Your task to perform on an android device: Open CNN.com Image 0: 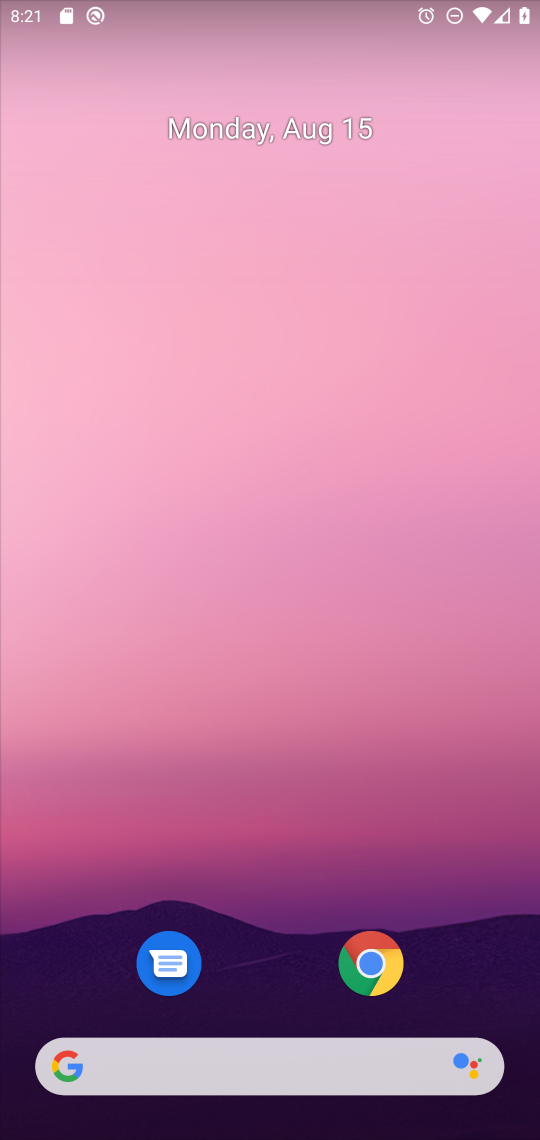
Step 0: click (360, 960)
Your task to perform on an android device: Open CNN.com Image 1: 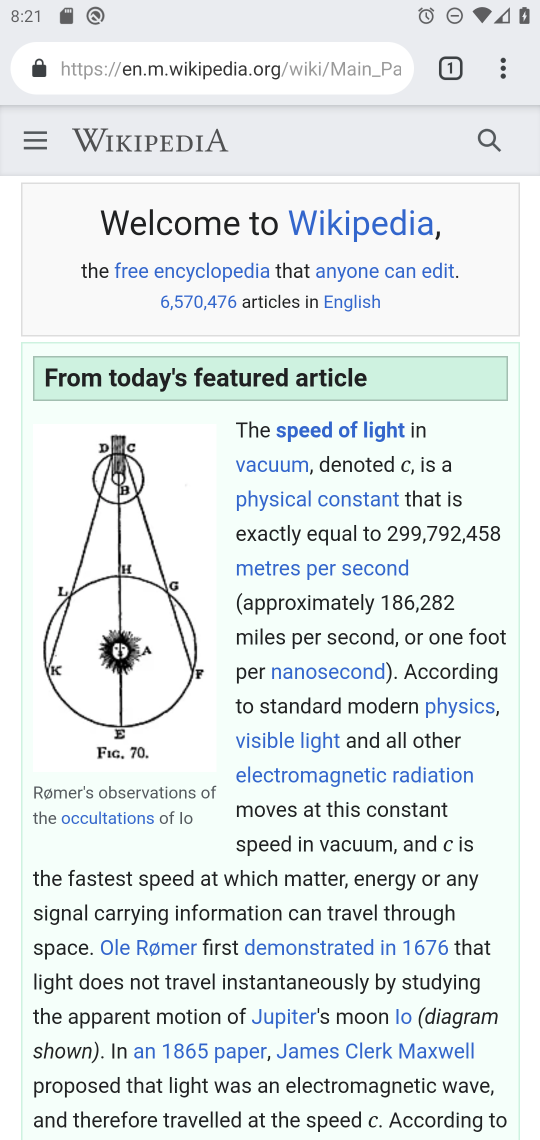
Step 1: click (239, 62)
Your task to perform on an android device: Open CNN.com Image 2: 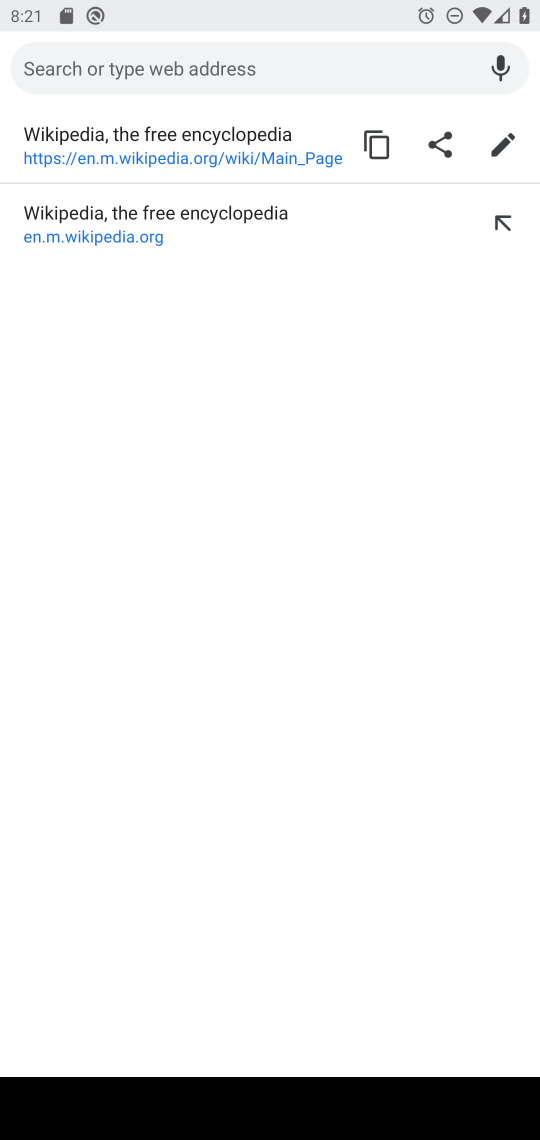
Step 2: type "cnn"
Your task to perform on an android device: Open CNN.com Image 3: 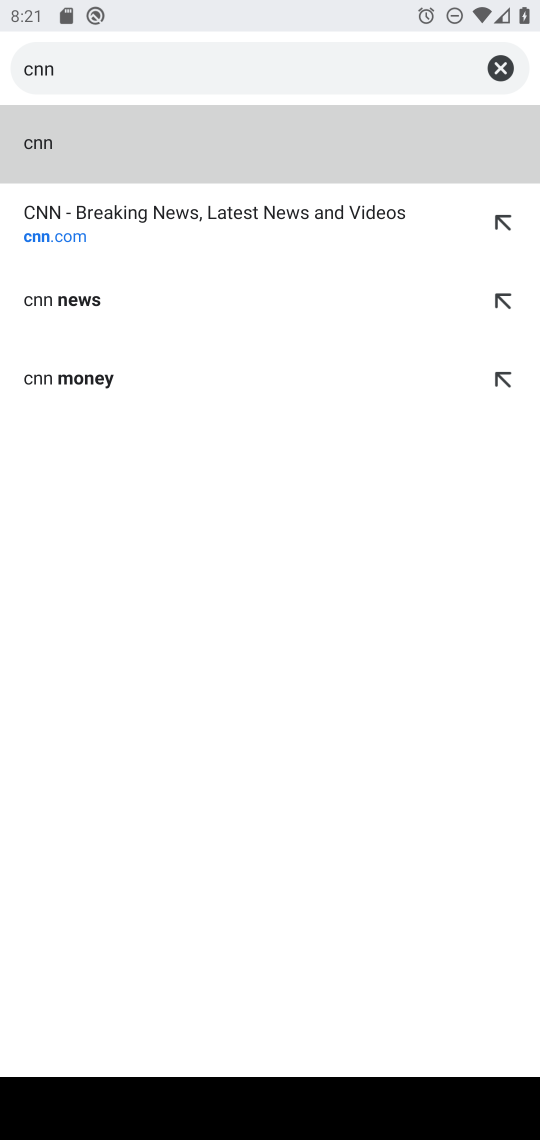
Step 3: click (364, 244)
Your task to perform on an android device: Open CNN.com Image 4: 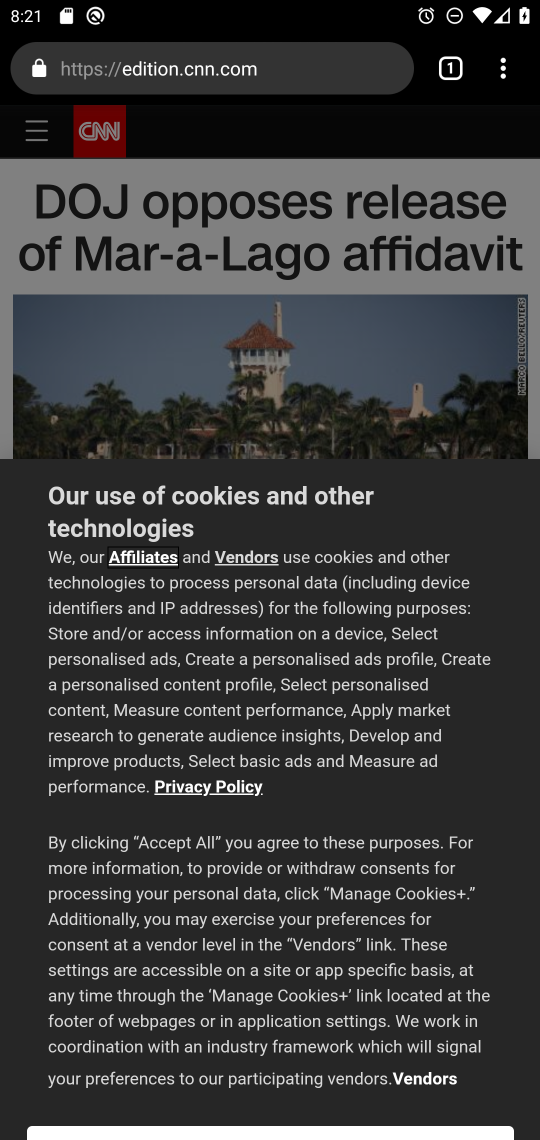
Step 4: task complete